Your task to perform on an android device: Is it going to rain this weekend? Image 0: 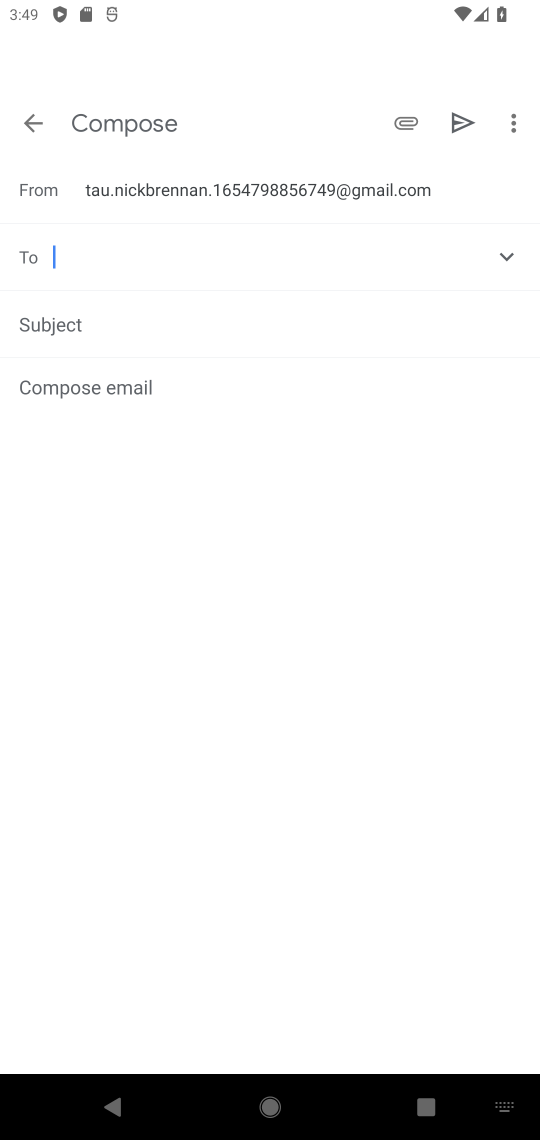
Step 0: press home button
Your task to perform on an android device: Is it going to rain this weekend? Image 1: 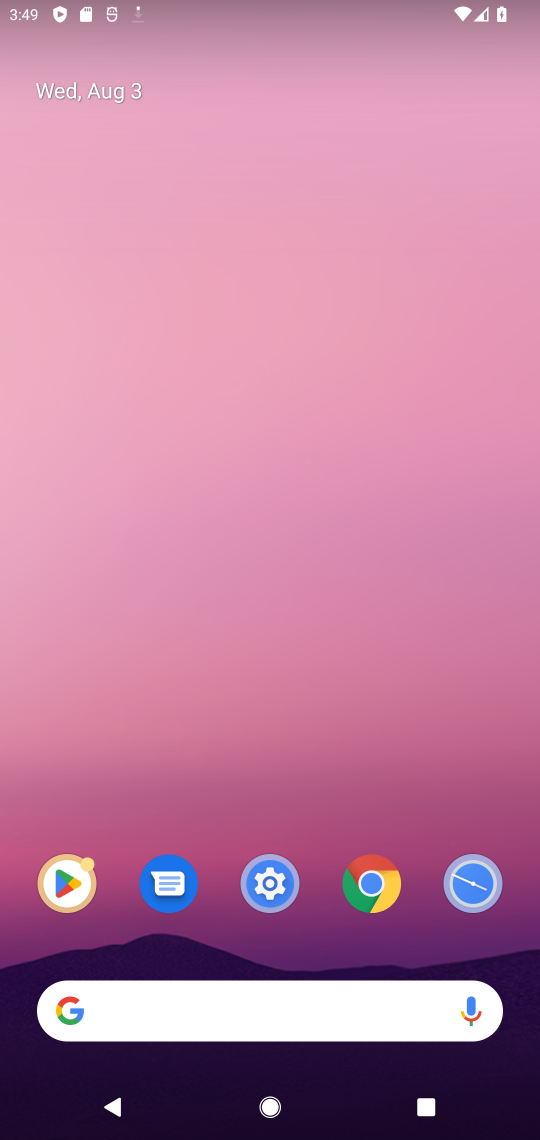
Step 1: click (247, 1006)
Your task to perform on an android device: Is it going to rain this weekend? Image 2: 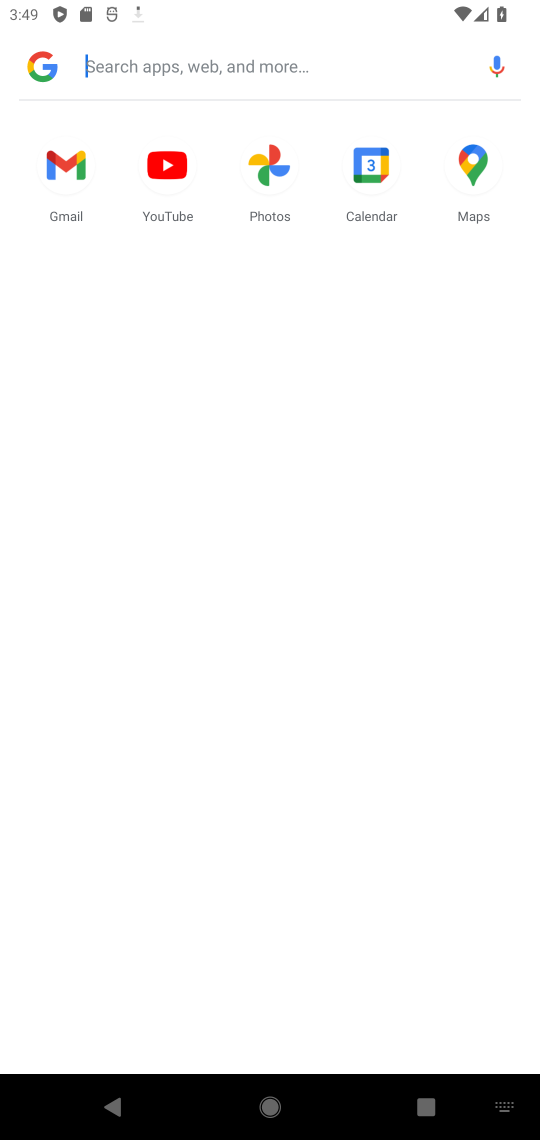
Step 2: type "weather"
Your task to perform on an android device: Is it going to rain this weekend? Image 3: 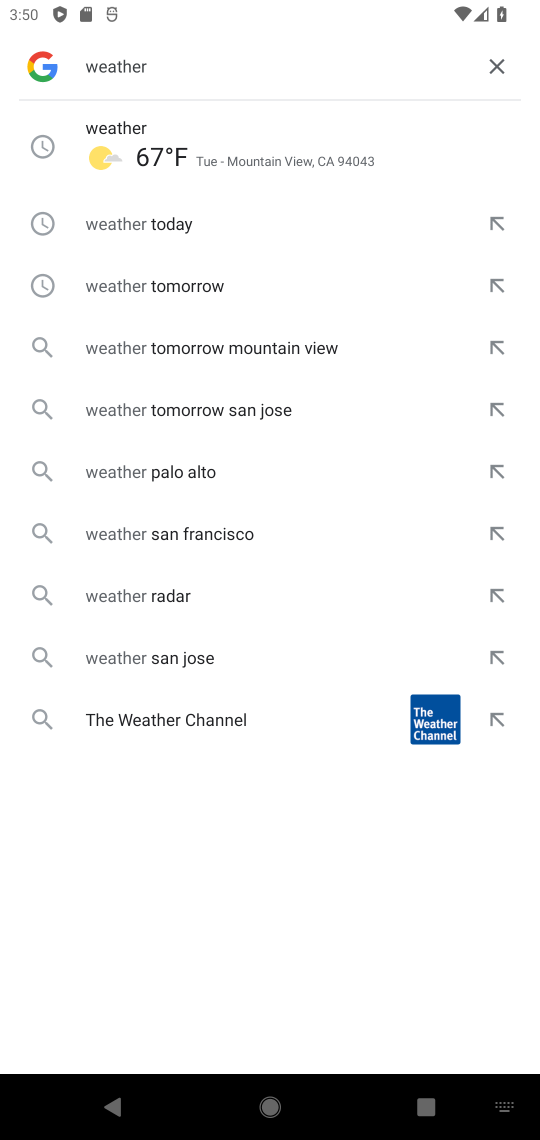
Step 3: click (155, 146)
Your task to perform on an android device: Is it going to rain this weekend? Image 4: 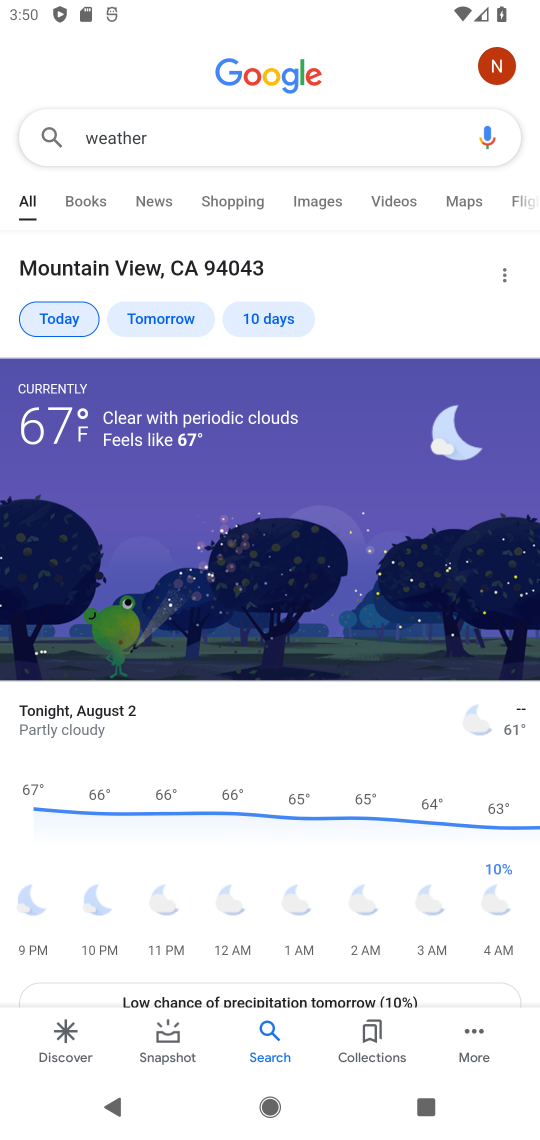
Step 4: click (294, 322)
Your task to perform on an android device: Is it going to rain this weekend? Image 5: 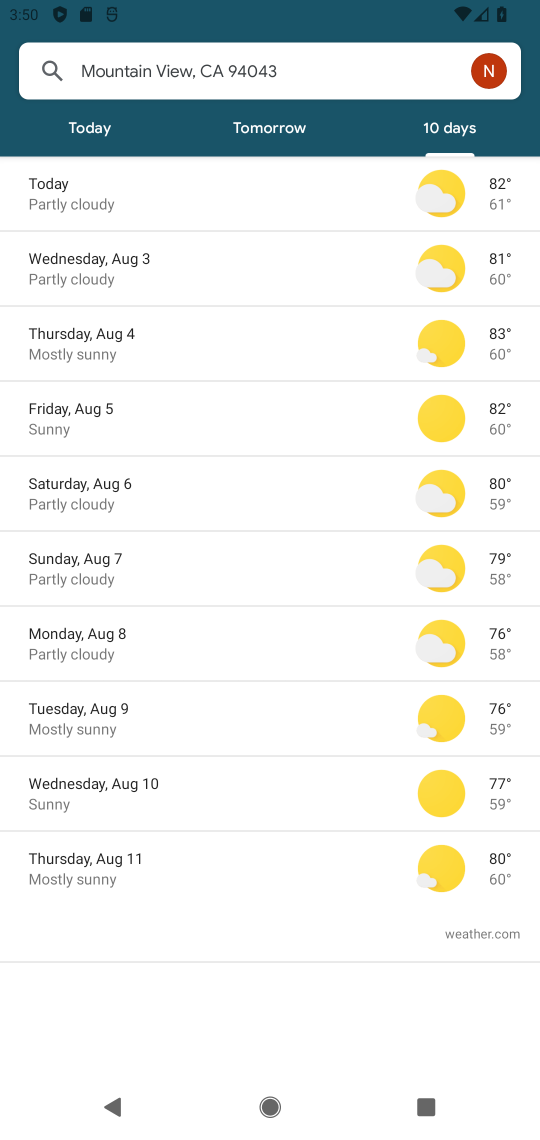
Step 5: task complete